Your task to perform on an android device: Open notification settings Image 0: 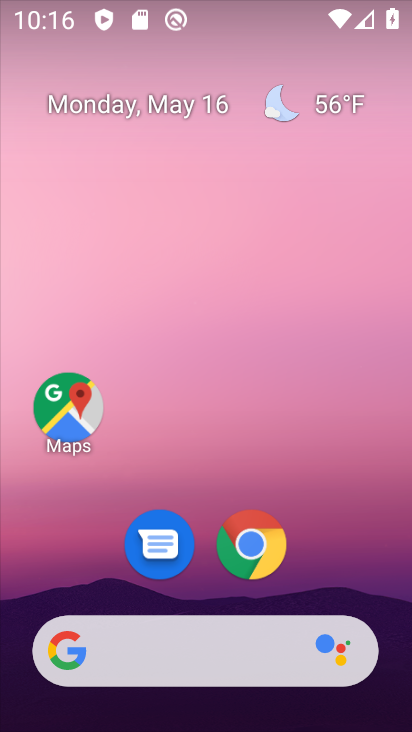
Step 0: drag from (48, 613) to (200, 57)
Your task to perform on an android device: Open notification settings Image 1: 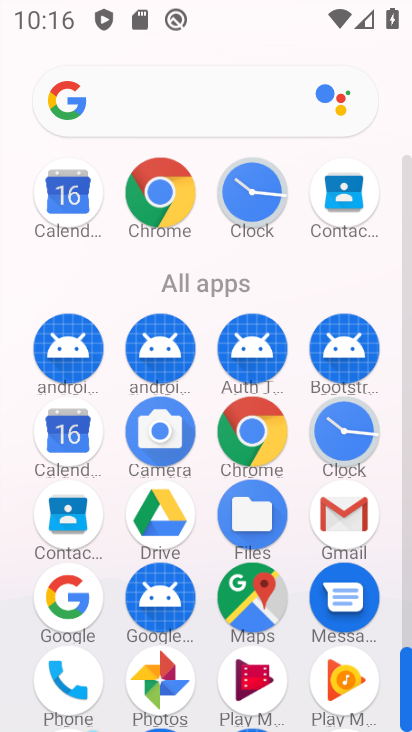
Step 1: drag from (198, 632) to (229, 369)
Your task to perform on an android device: Open notification settings Image 2: 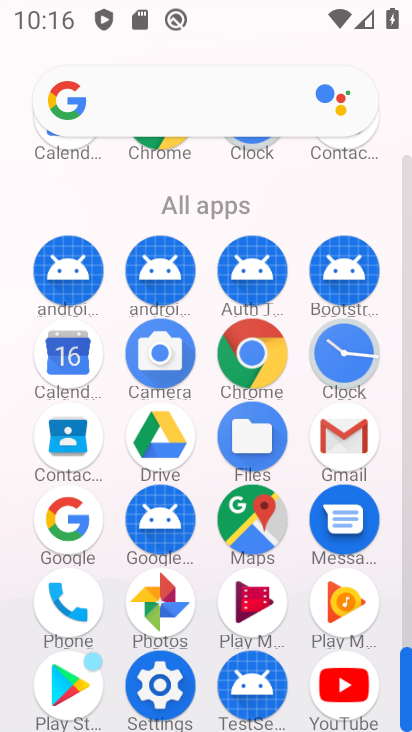
Step 2: click (156, 690)
Your task to perform on an android device: Open notification settings Image 3: 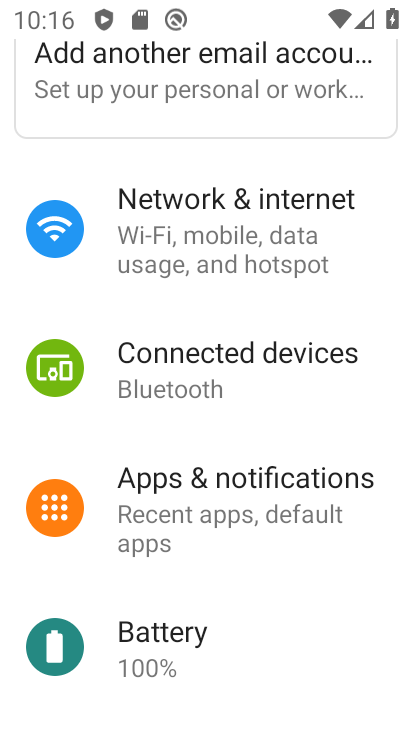
Step 3: click (223, 536)
Your task to perform on an android device: Open notification settings Image 4: 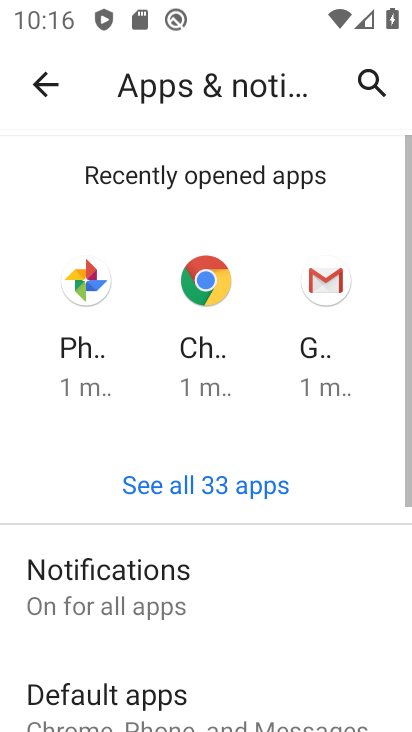
Step 4: click (211, 562)
Your task to perform on an android device: Open notification settings Image 5: 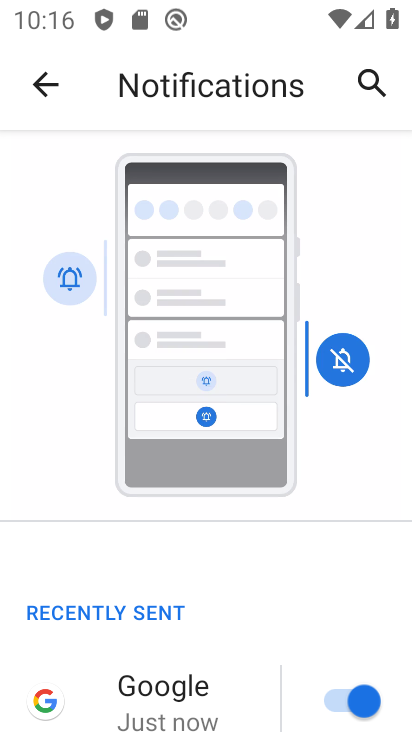
Step 5: task complete